Your task to perform on an android device: Empty the shopping cart on target. Add logitech g502 to the cart on target, then select checkout. Image 0: 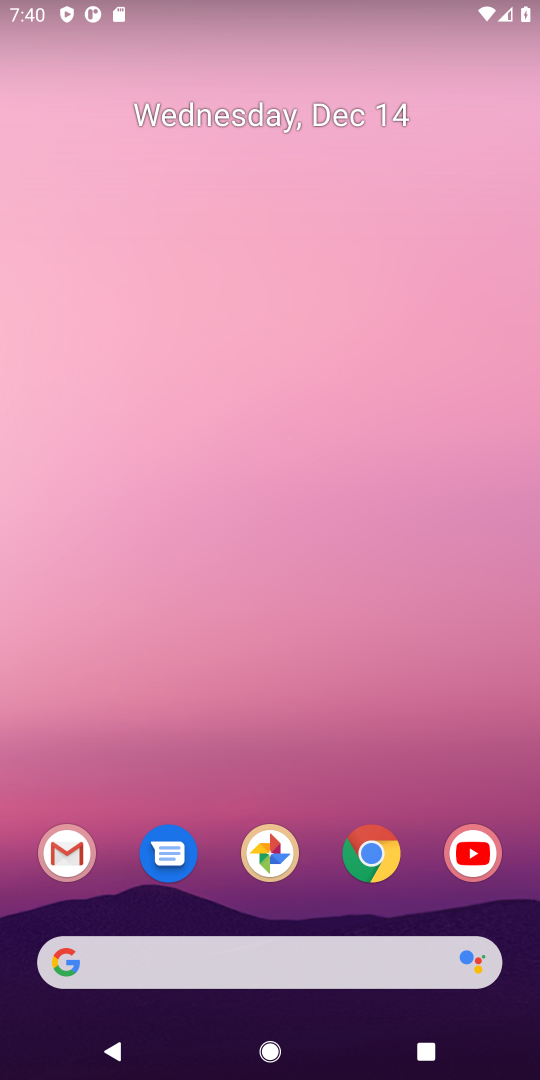
Step 0: click (375, 854)
Your task to perform on an android device: Empty the shopping cart on target. Add logitech g502 to the cart on target, then select checkout. Image 1: 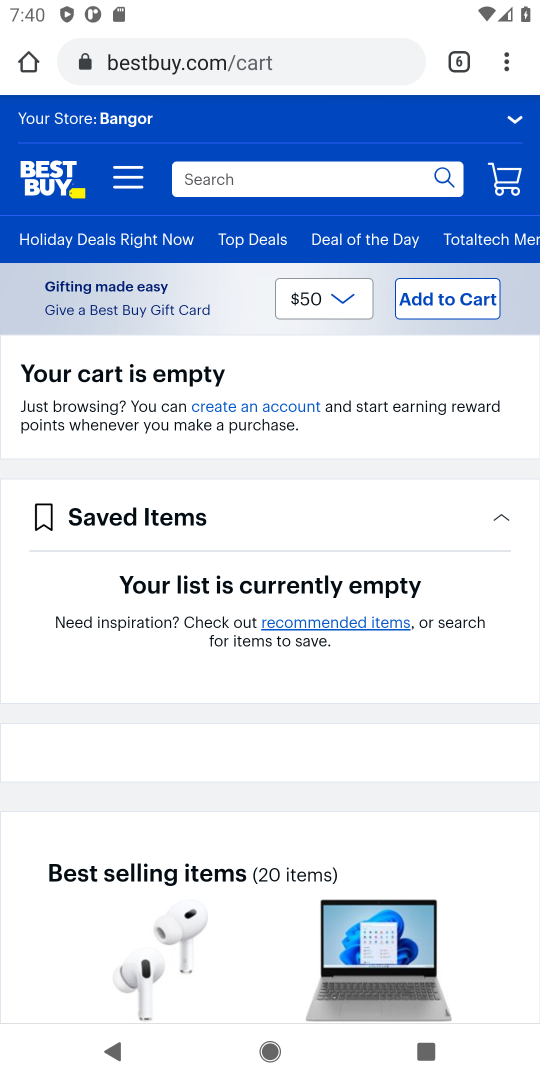
Step 1: click (454, 63)
Your task to perform on an android device: Empty the shopping cart on target. Add logitech g502 to the cart on target, then select checkout. Image 2: 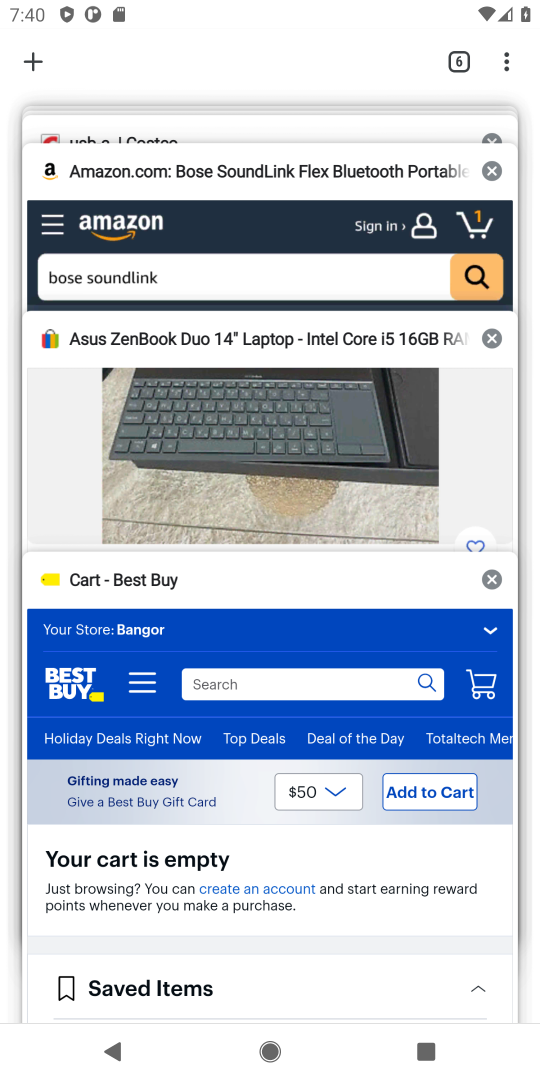
Step 2: drag from (239, 134) to (224, 319)
Your task to perform on an android device: Empty the shopping cart on target. Add logitech g502 to the cart on target, then select checkout. Image 3: 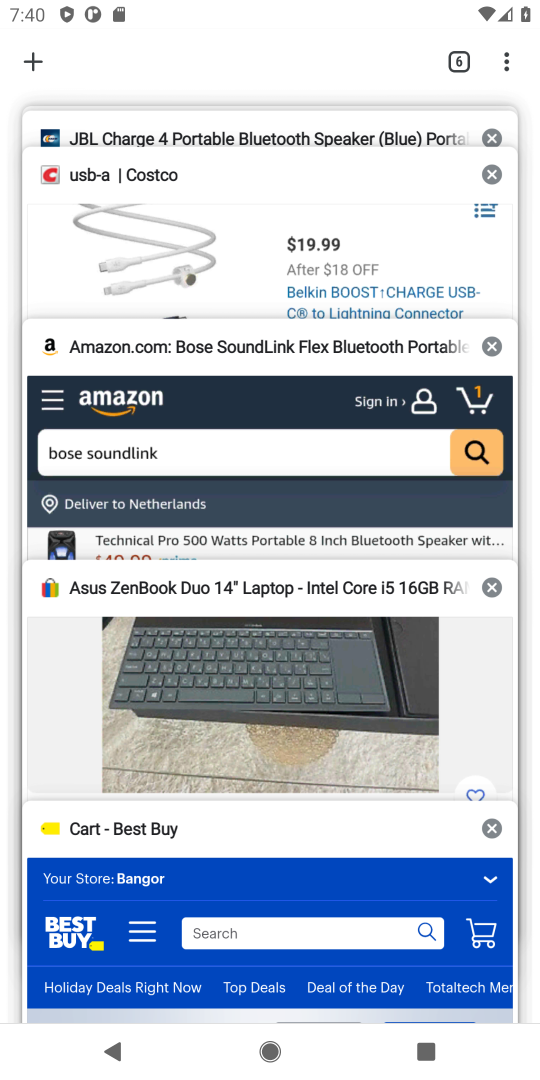
Step 3: drag from (251, 116) to (228, 307)
Your task to perform on an android device: Empty the shopping cart on target. Add logitech g502 to the cart on target, then select checkout. Image 4: 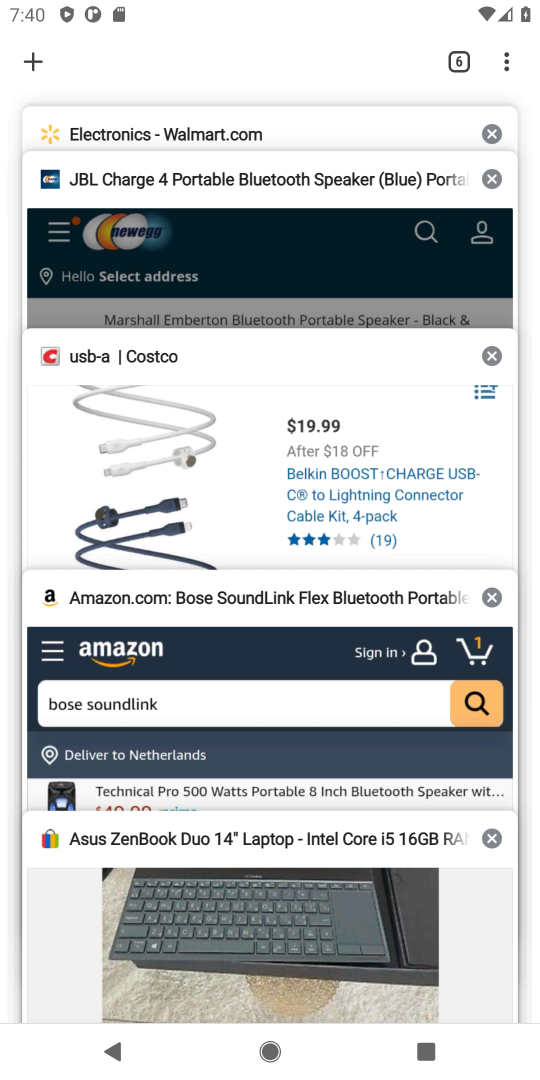
Step 4: click (30, 64)
Your task to perform on an android device: Empty the shopping cart on target. Add logitech g502 to the cart on target, then select checkout. Image 5: 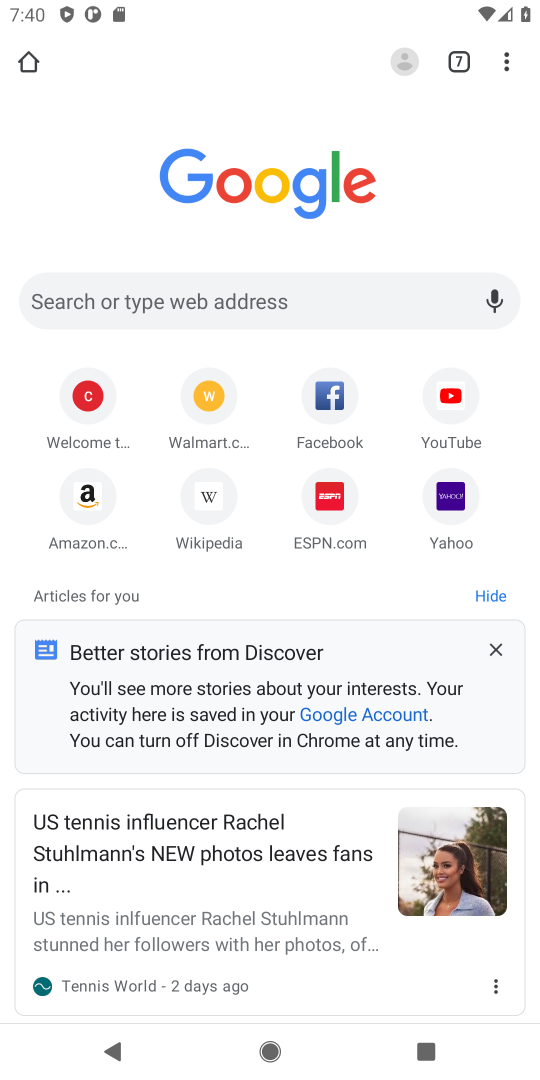
Step 5: click (186, 294)
Your task to perform on an android device: Empty the shopping cart on target. Add logitech g502 to the cart on target, then select checkout. Image 6: 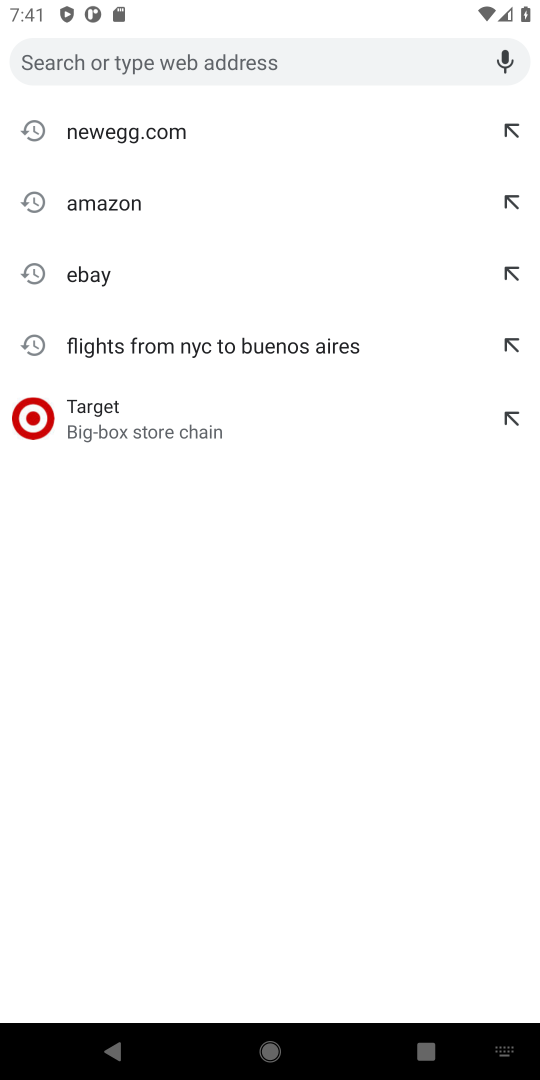
Step 6: click (117, 419)
Your task to perform on an android device: Empty the shopping cart on target. Add logitech g502 to the cart on target, then select checkout. Image 7: 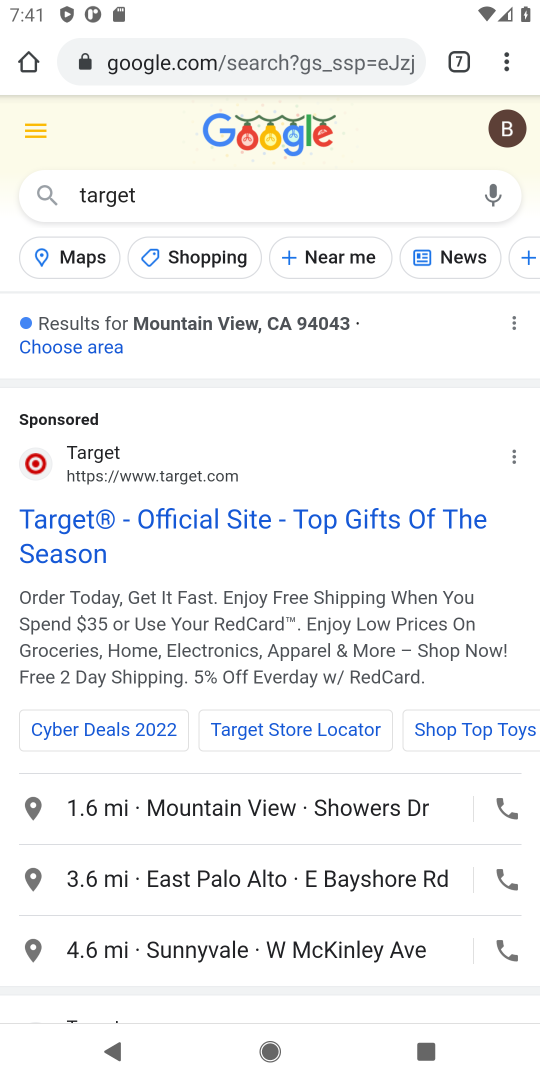
Step 7: click (62, 520)
Your task to perform on an android device: Empty the shopping cart on target. Add logitech g502 to the cart on target, then select checkout. Image 8: 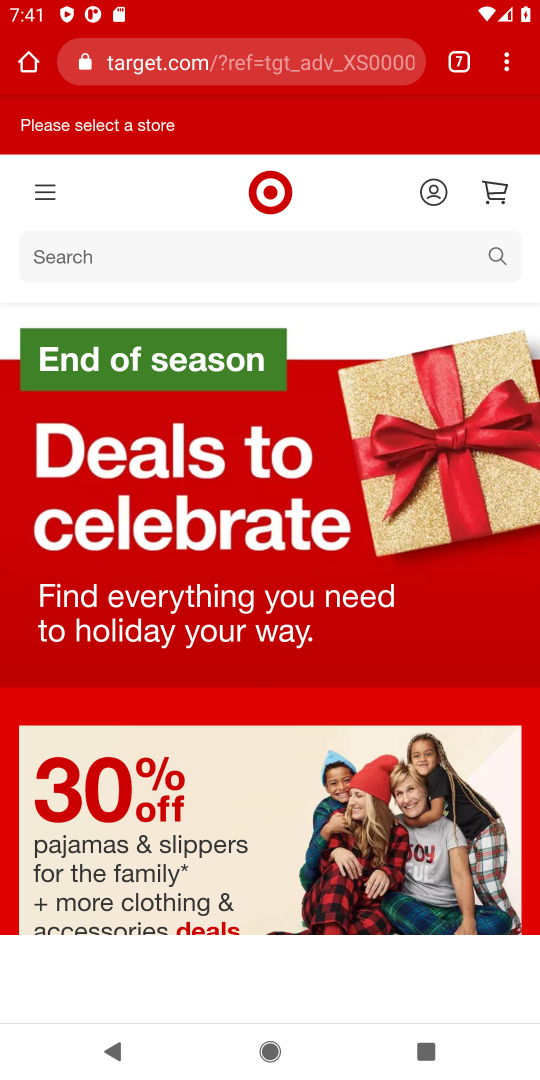
Step 8: click (291, 263)
Your task to perform on an android device: Empty the shopping cart on target. Add logitech g502 to the cart on target, then select checkout. Image 9: 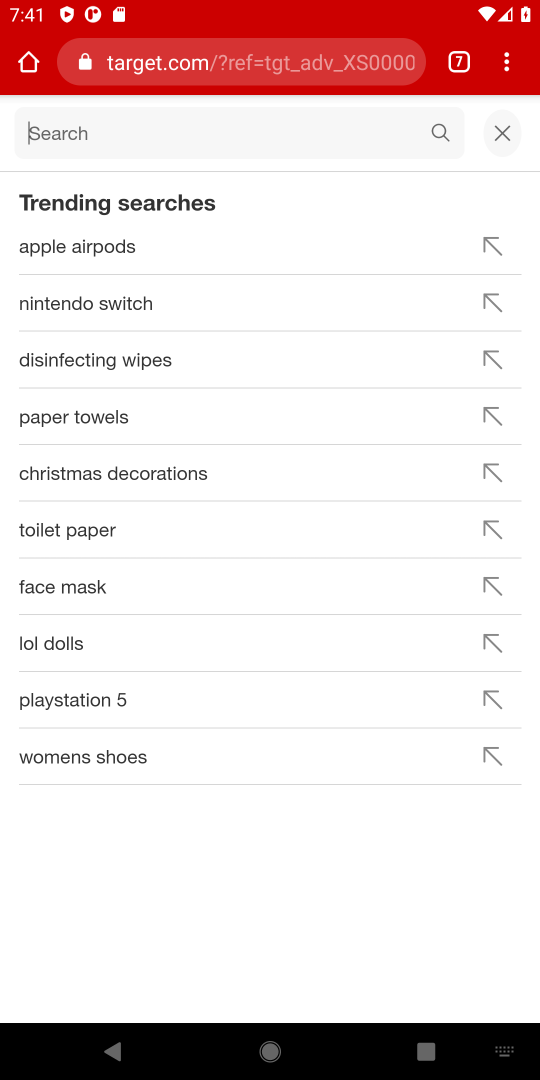
Step 9: type "logitech g502"
Your task to perform on an android device: Empty the shopping cart on target. Add logitech g502 to the cart on target, then select checkout. Image 10: 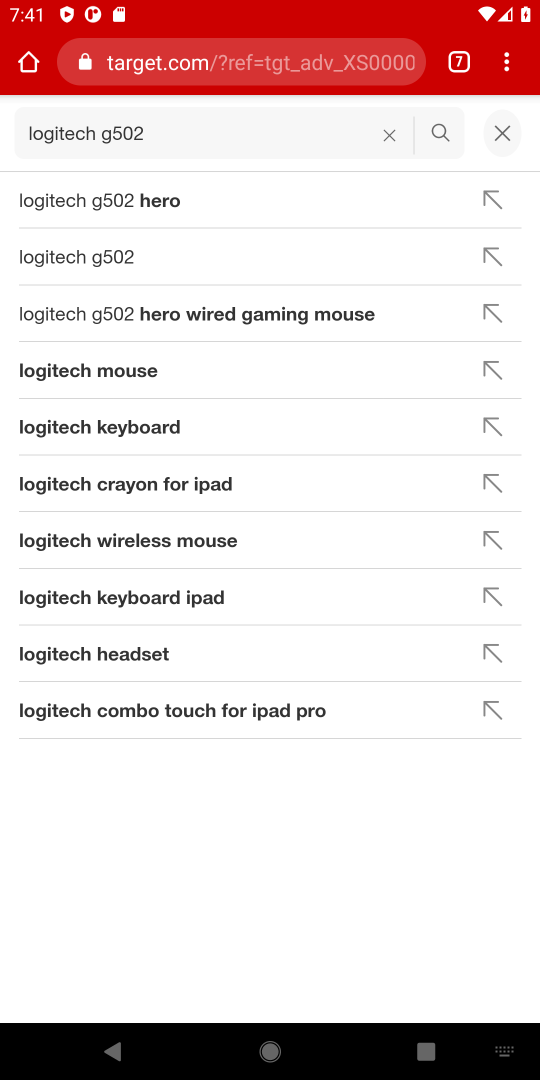
Step 10: click (128, 255)
Your task to perform on an android device: Empty the shopping cart on target. Add logitech g502 to the cart on target, then select checkout. Image 11: 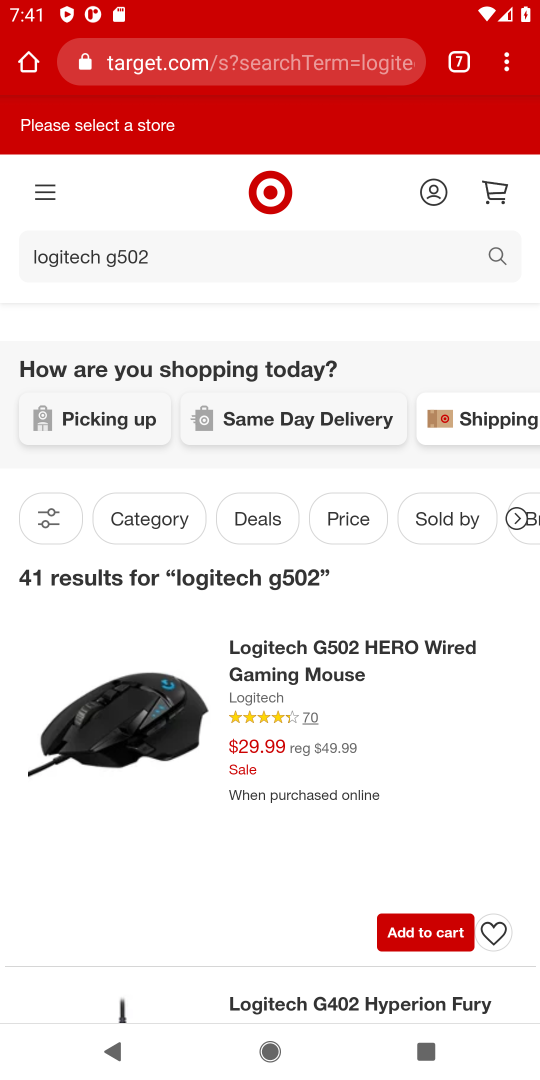
Step 11: click (437, 937)
Your task to perform on an android device: Empty the shopping cart on target. Add logitech g502 to the cart on target, then select checkout. Image 12: 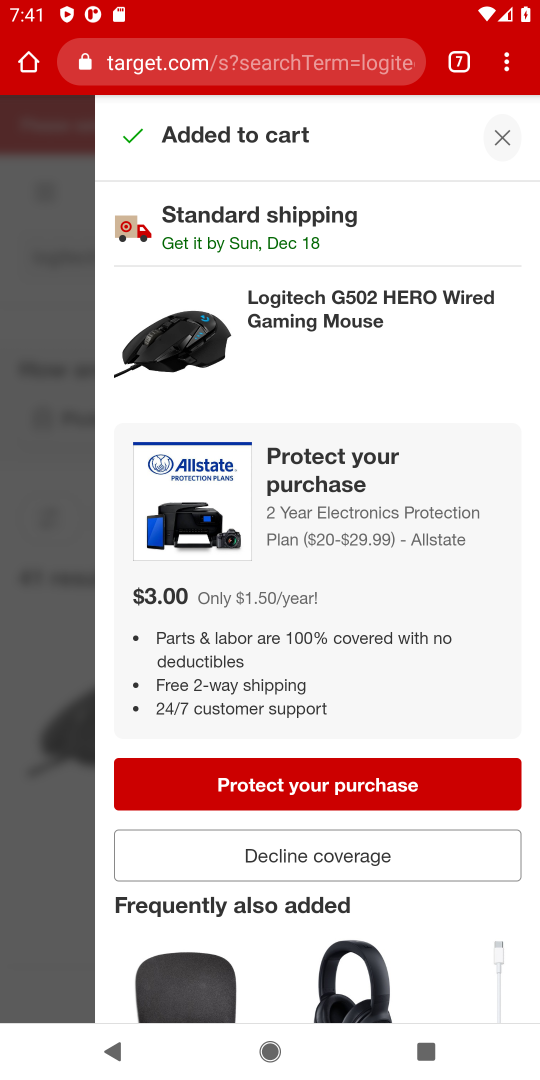
Step 12: task complete